Your task to perform on an android device: create a new album in the google photos Image 0: 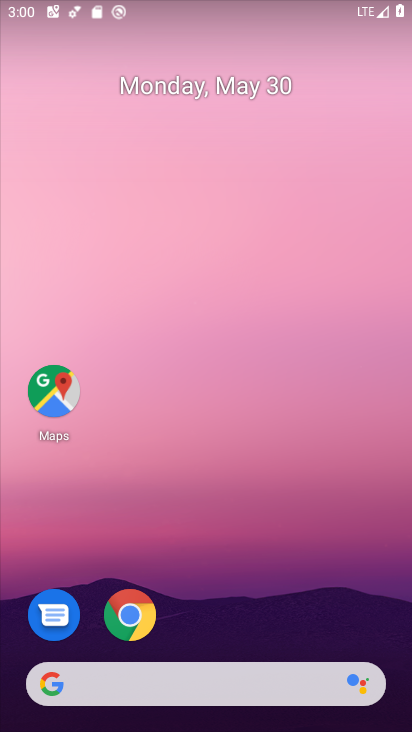
Step 0: drag from (232, 602) to (217, 21)
Your task to perform on an android device: create a new album in the google photos Image 1: 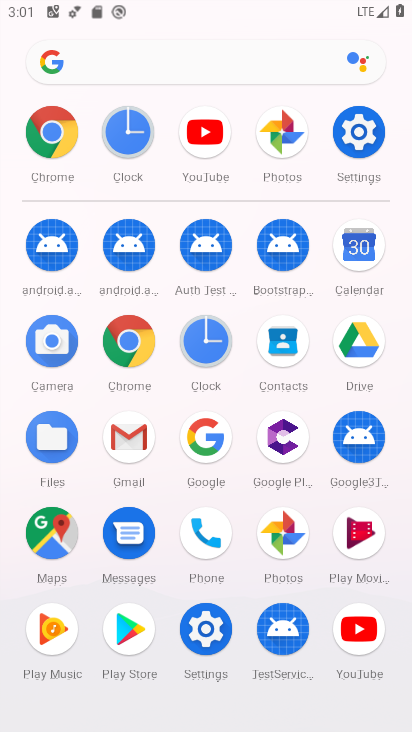
Step 1: click (280, 134)
Your task to perform on an android device: create a new album in the google photos Image 2: 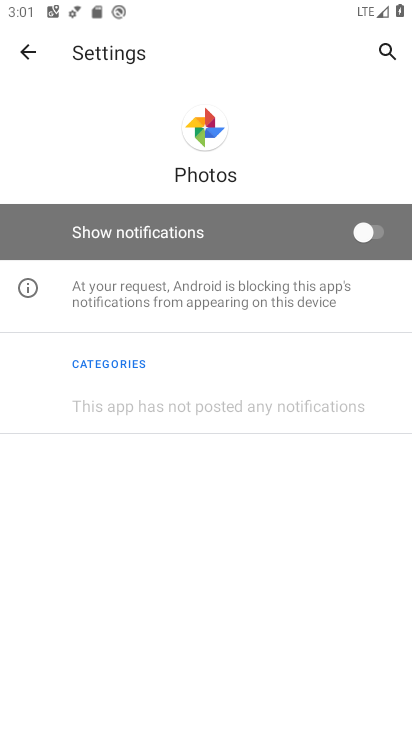
Step 2: click (28, 43)
Your task to perform on an android device: create a new album in the google photos Image 3: 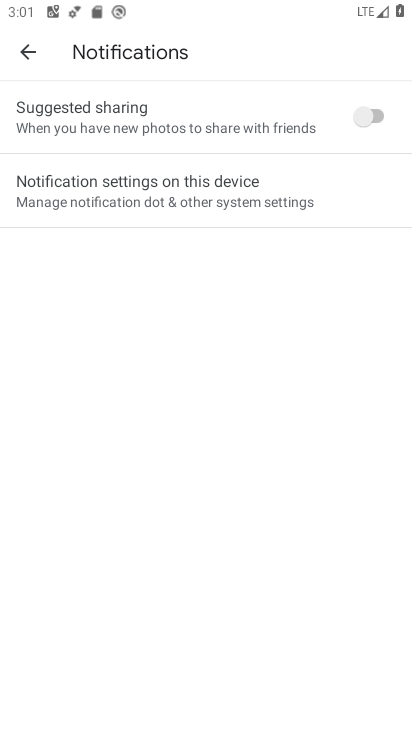
Step 3: click (22, 41)
Your task to perform on an android device: create a new album in the google photos Image 4: 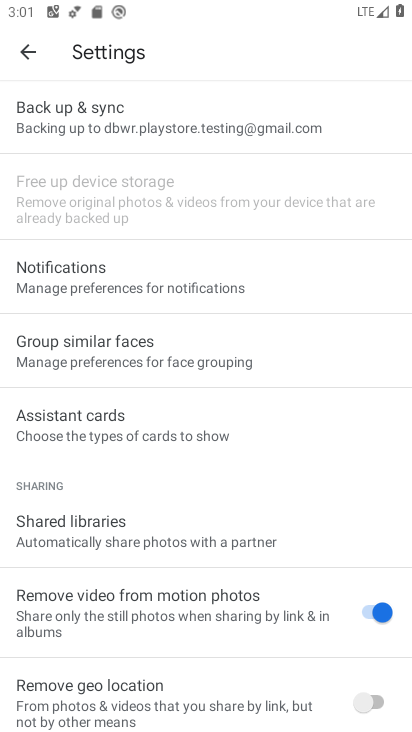
Step 4: click (30, 46)
Your task to perform on an android device: create a new album in the google photos Image 5: 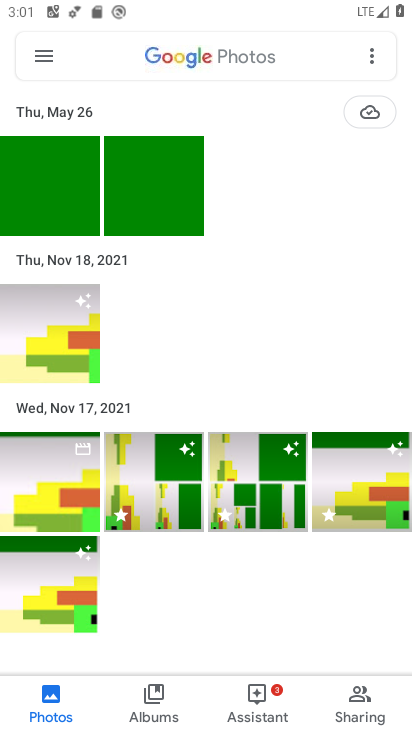
Step 5: click (157, 701)
Your task to perform on an android device: create a new album in the google photos Image 6: 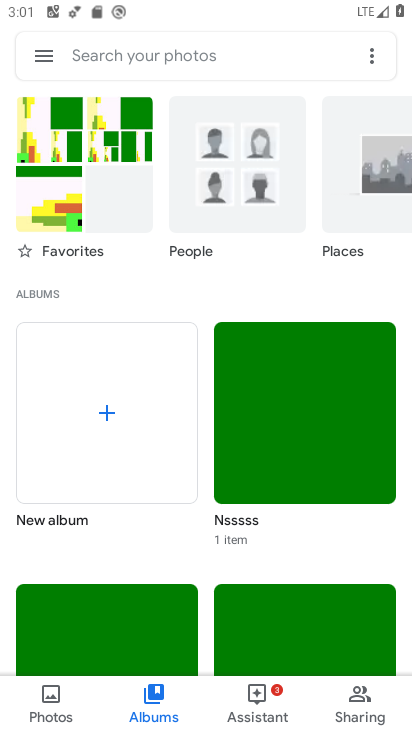
Step 6: click (105, 403)
Your task to perform on an android device: create a new album in the google photos Image 7: 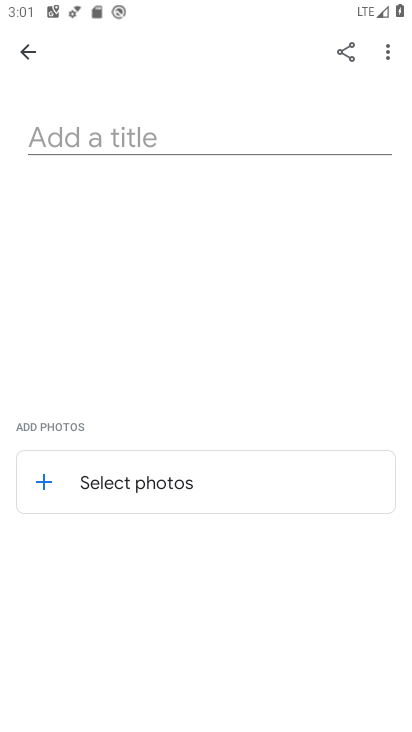
Step 7: click (201, 134)
Your task to perform on an android device: create a new album in the google photos Image 8: 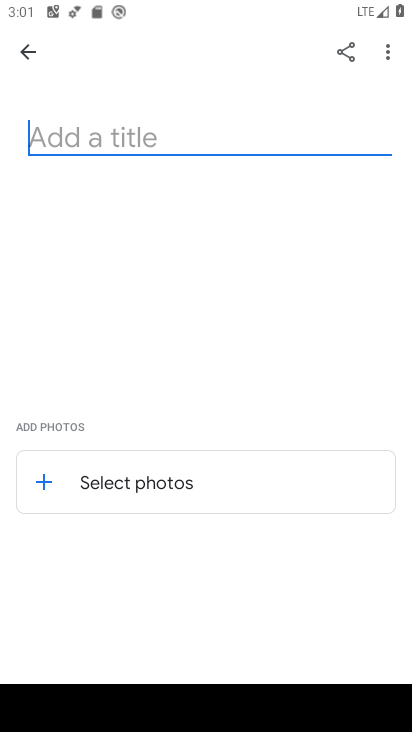
Step 8: type "Golden Temple"
Your task to perform on an android device: create a new album in the google photos Image 9: 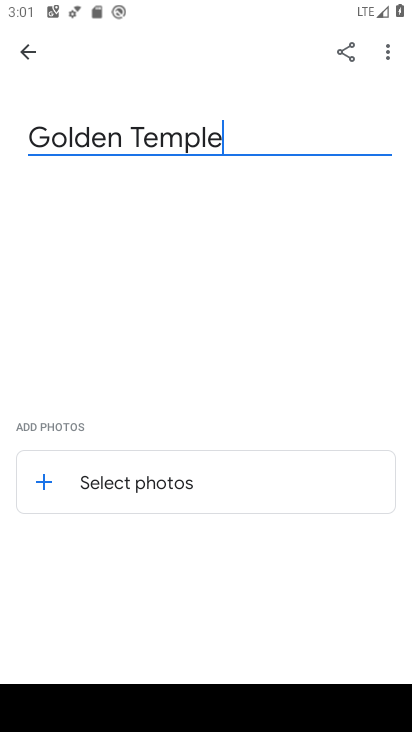
Step 9: click (43, 480)
Your task to perform on an android device: create a new album in the google photos Image 10: 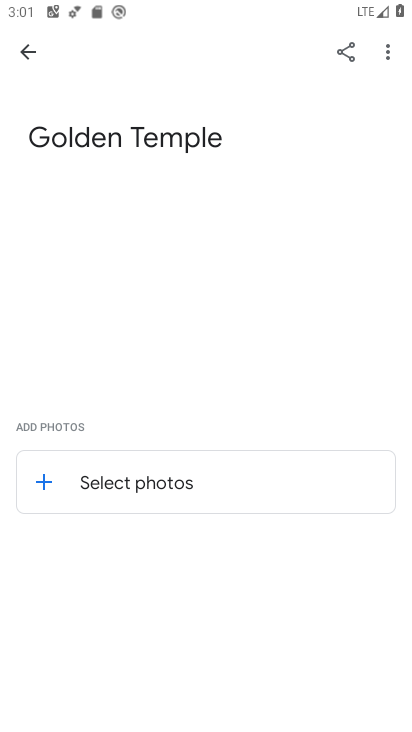
Step 10: click (33, 470)
Your task to perform on an android device: create a new album in the google photos Image 11: 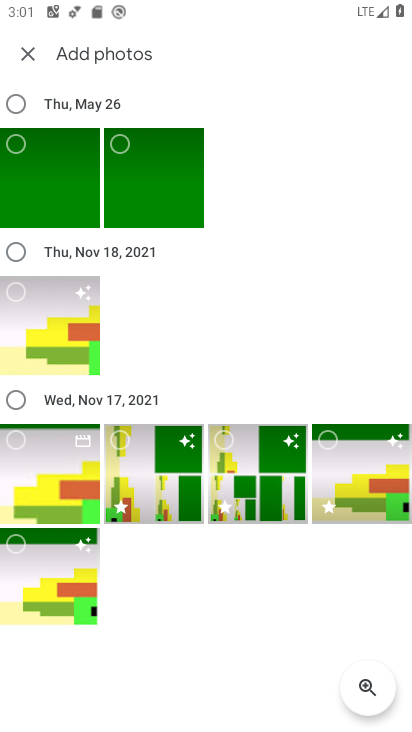
Step 11: click (15, 440)
Your task to perform on an android device: create a new album in the google photos Image 12: 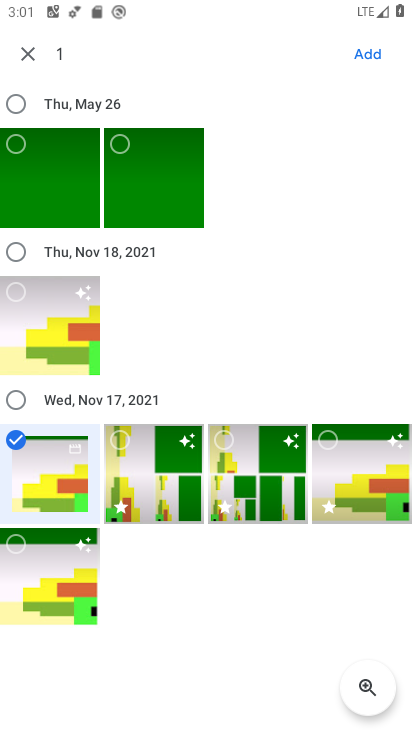
Step 12: click (14, 542)
Your task to perform on an android device: create a new album in the google photos Image 13: 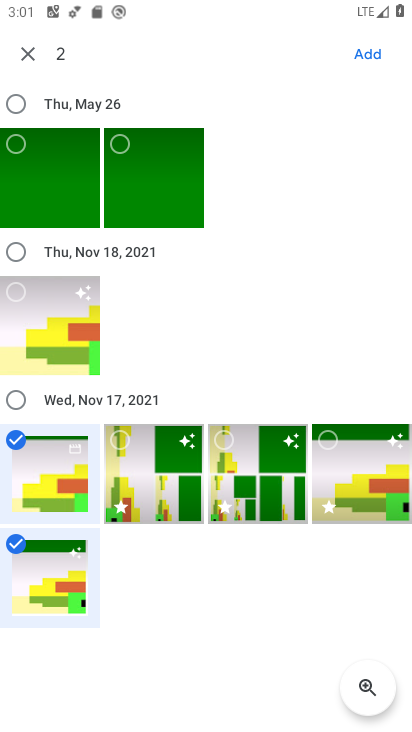
Step 13: click (376, 49)
Your task to perform on an android device: create a new album in the google photos Image 14: 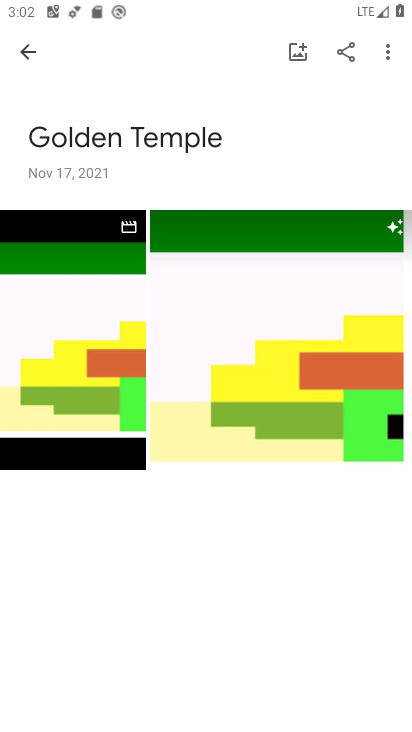
Step 14: task complete